Your task to perform on an android device: turn notification dots on Image 0: 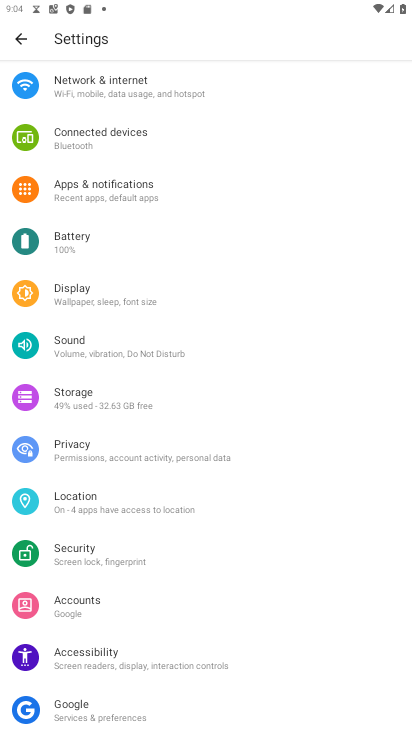
Step 0: press home button
Your task to perform on an android device: turn notification dots on Image 1: 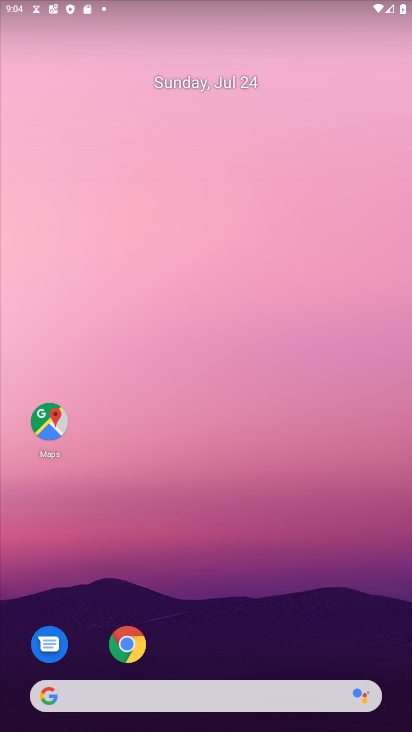
Step 1: drag from (220, 655) to (251, 32)
Your task to perform on an android device: turn notification dots on Image 2: 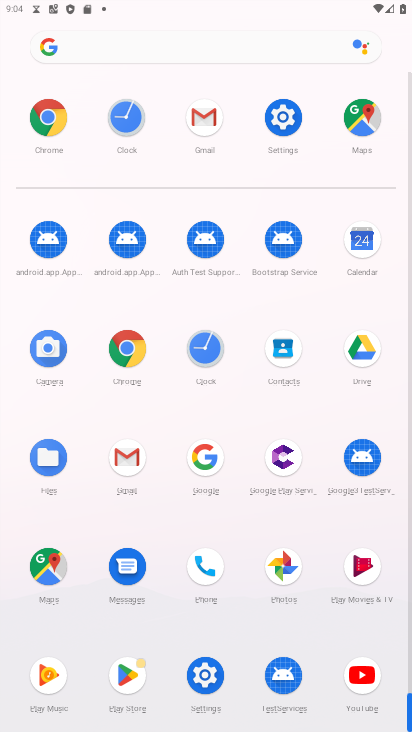
Step 2: click (218, 677)
Your task to perform on an android device: turn notification dots on Image 3: 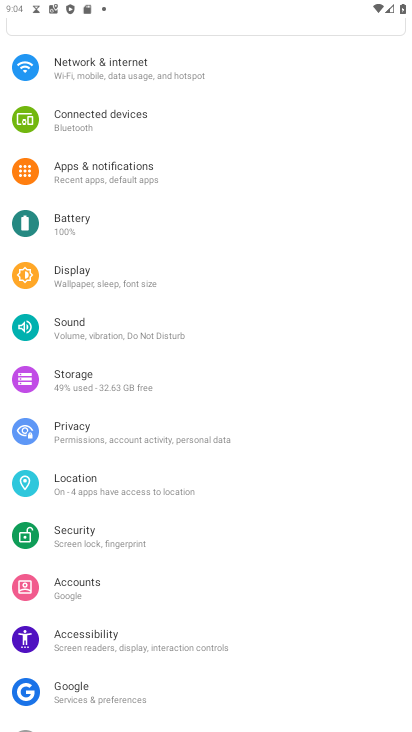
Step 3: click (137, 164)
Your task to perform on an android device: turn notification dots on Image 4: 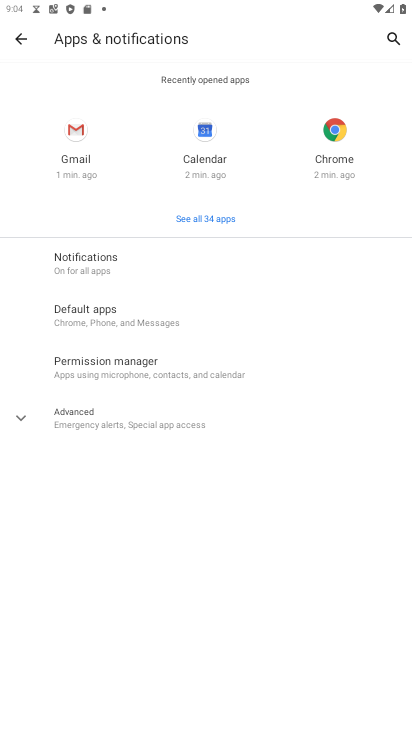
Step 4: click (102, 264)
Your task to perform on an android device: turn notification dots on Image 5: 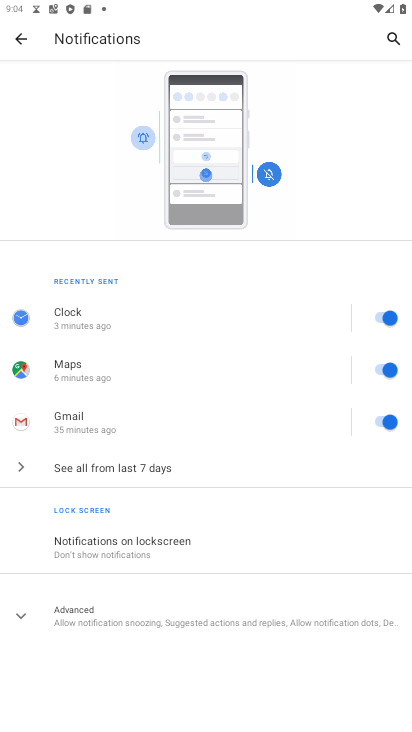
Step 5: click (84, 613)
Your task to perform on an android device: turn notification dots on Image 6: 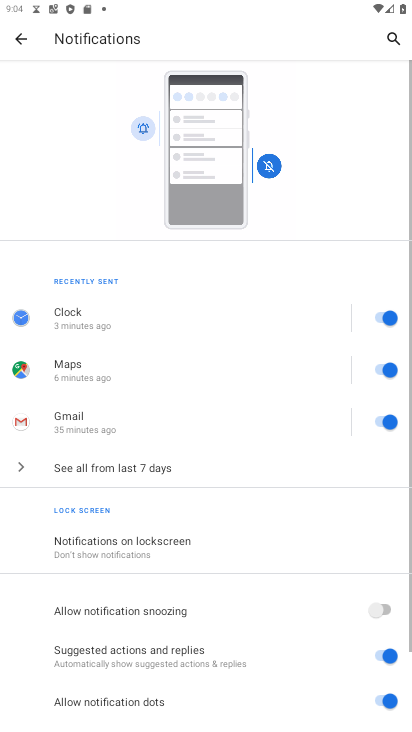
Step 6: task complete